Your task to perform on an android device: change your default location settings in chrome Image 0: 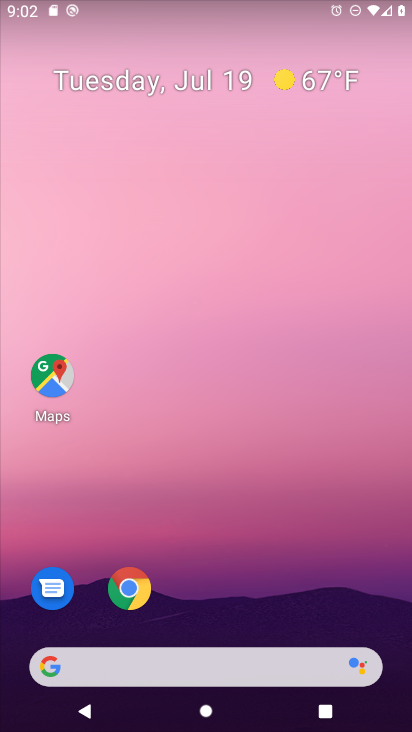
Step 0: drag from (368, 586) to (387, 111)
Your task to perform on an android device: change your default location settings in chrome Image 1: 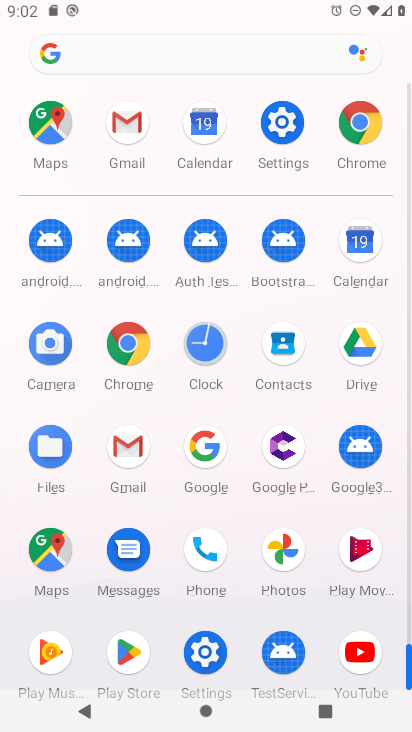
Step 1: click (360, 120)
Your task to perform on an android device: change your default location settings in chrome Image 2: 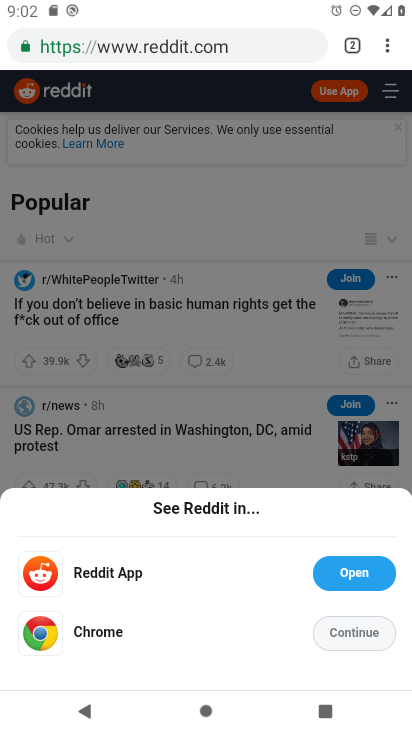
Step 2: click (392, 51)
Your task to perform on an android device: change your default location settings in chrome Image 3: 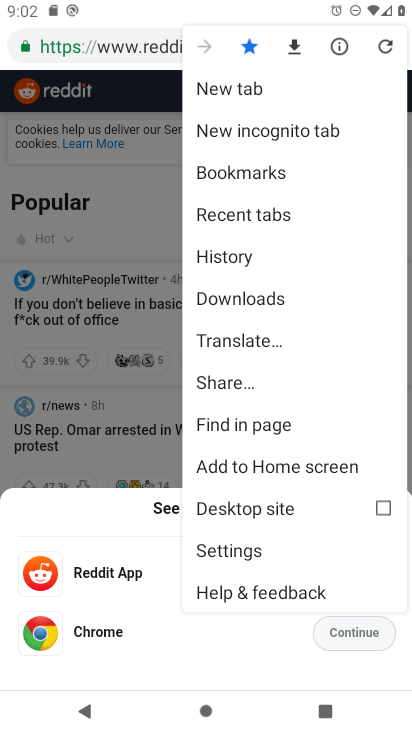
Step 3: click (274, 566)
Your task to perform on an android device: change your default location settings in chrome Image 4: 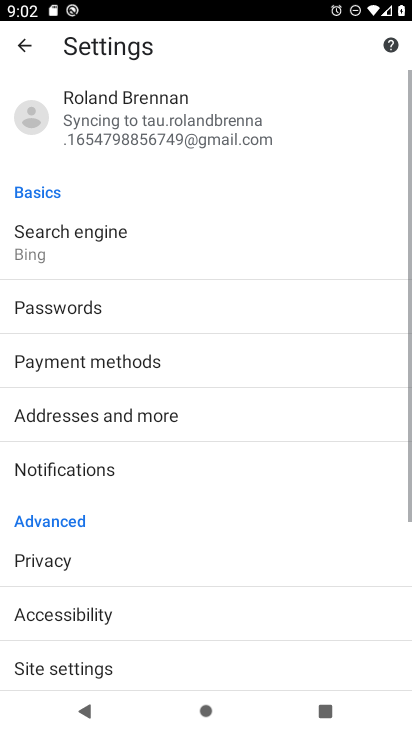
Step 4: drag from (291, 601) to (288, 430)
Your task to perform on an android device: change your default location settings in chrome Image 5: 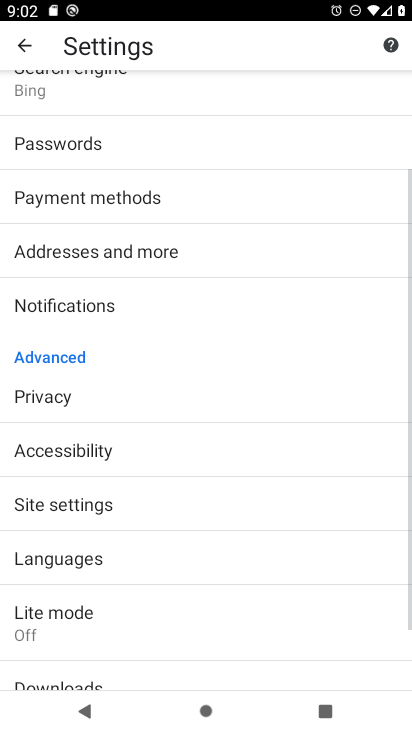
Step 5: drag from (285, 510) to (298, 387)
Your task to perform on an android device: change your default location settings in chrome Image 6: 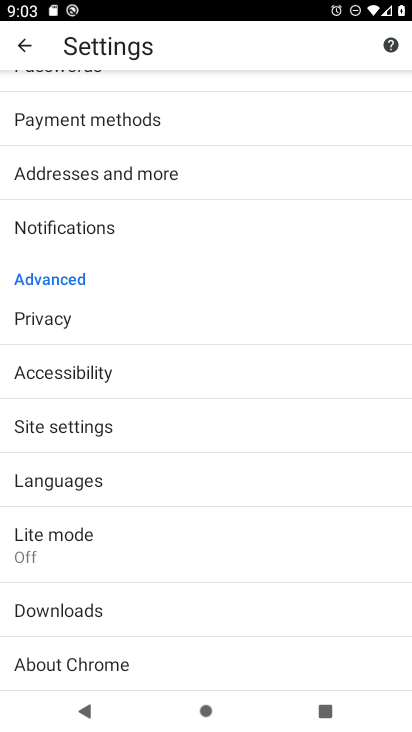
Step 6: drag from (294, 395) to (296, 320)
Your task to perform on an android device: change your default location settings in chrome Image 7: 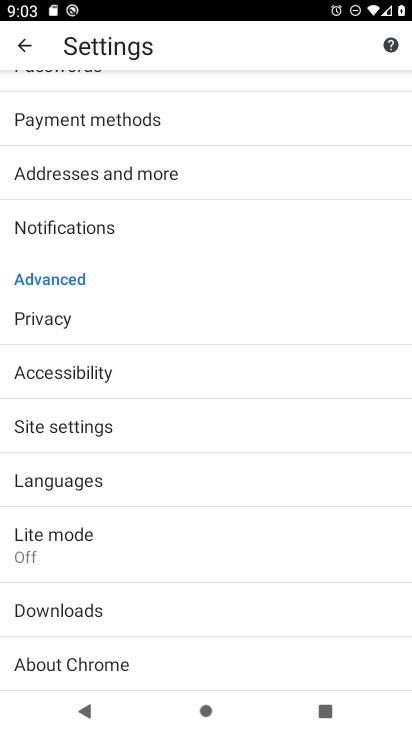
Step 7: click (236, 419)
Your task to perform on an android device: change your default location settings in chrome Image 8: 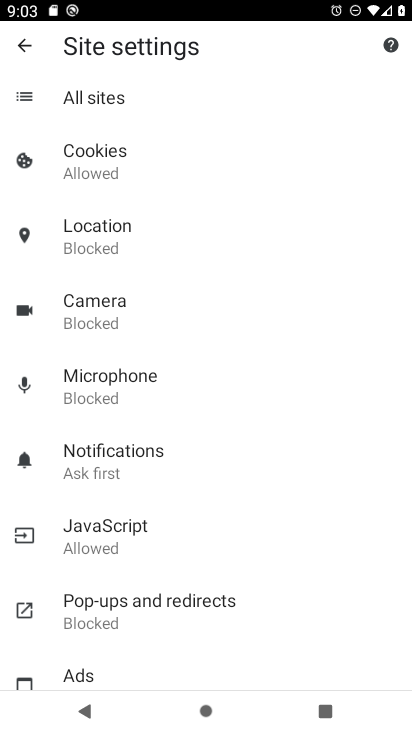
Step 8: drag from (262, 488) to (263, 397)
Your task to perform on an android device: change your default location settings in chrome Image 9: 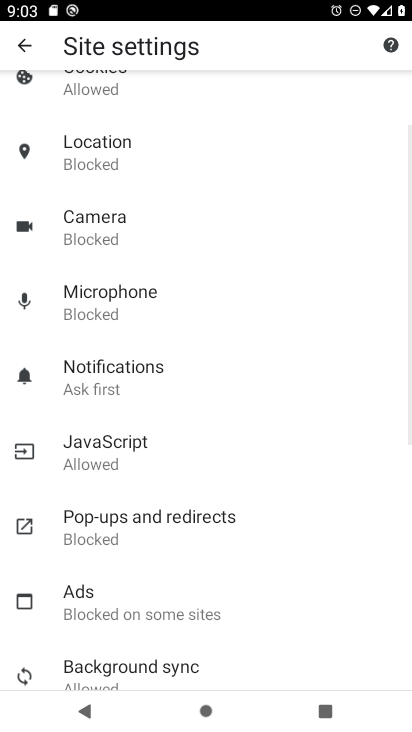
Step 9: drag from (299, 551) to (297, 446)
Your task to perform on an android device: change your default location settings in chrome Image 10: 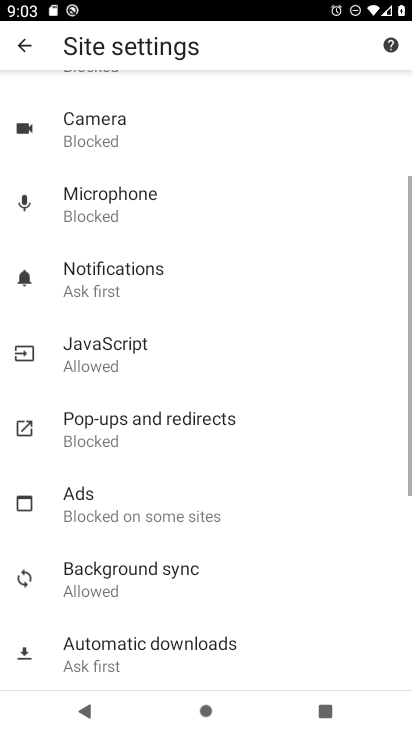
Step 10: drag from (300, 483) to (309, 374)
Your task to perform on an android device: change your default location settings in chrome Image 11: 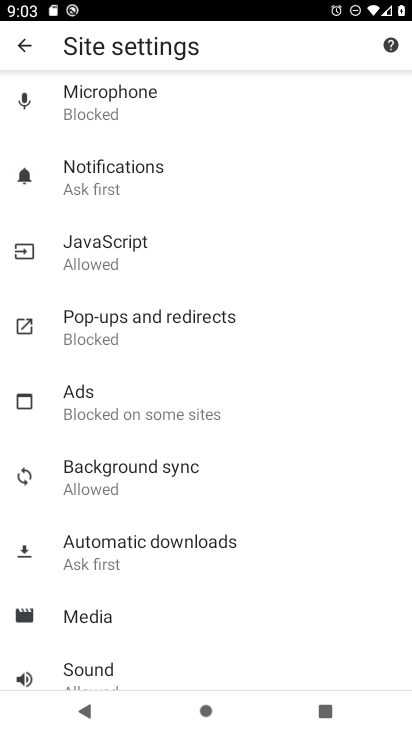
Step 11: drag from (317, 310) to (349, 430)
Your task to perform on an android device: change your default location settings in chrome Image 12: 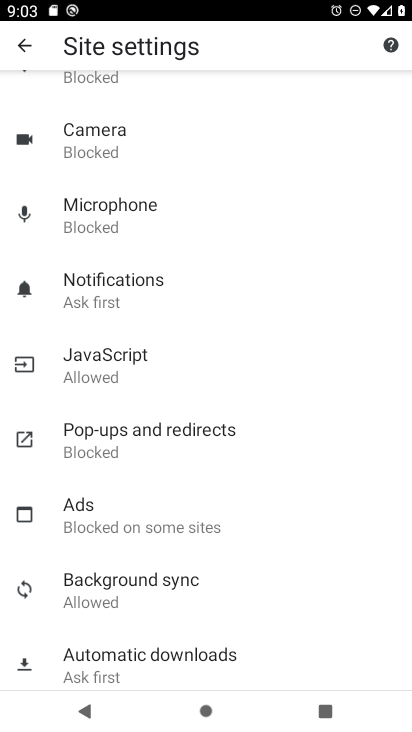
Step 12: drag from (330, 308) to (349, 408)
Your task to perform on an android device: change your default location settings in chrome Image 13: 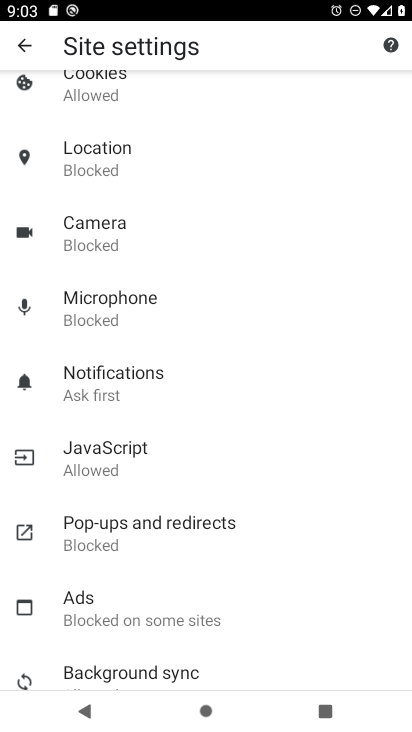
Step 13: drag from (279, 206) to (316, 371)
Your task to perform on an android device: change your default location settings in chrome Image 14: 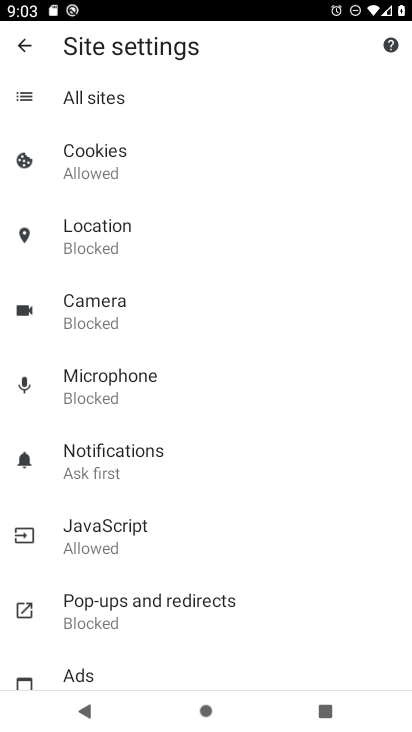
Step 14: click (107, 253)
Your task to perform on an android device: change your default location settings in chrome Image 15: 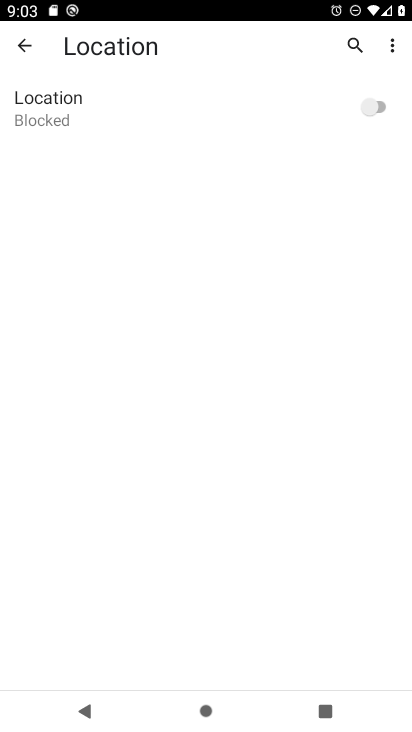
Step 15: click (360, 117)
Your task to perform on an android device: change your default location settings in chrome Image 16: 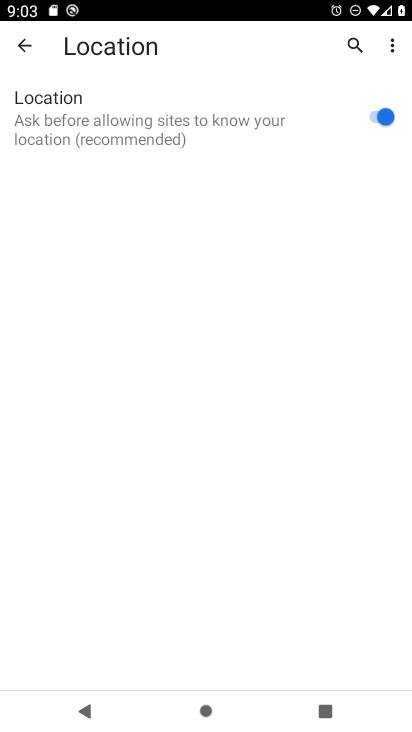
Step 16: task complete